Your task to perform on an android device: toggle show notifications on the lock screen Image 0: 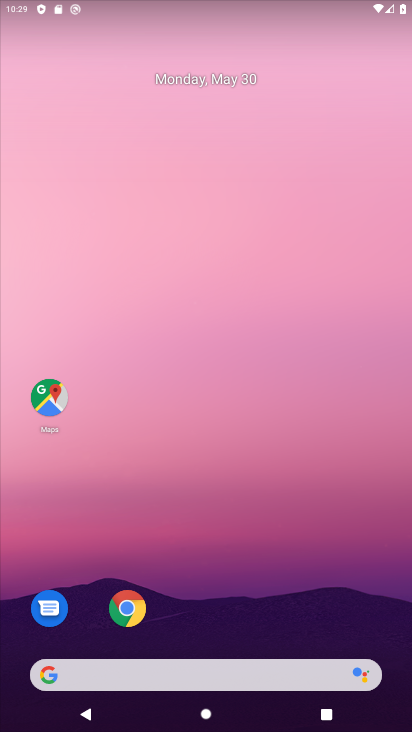
Step 0: drag from (365, 554) to (311, 6)
Your task to perform on an android device: toggle show notifications on the lock screen Image 1: 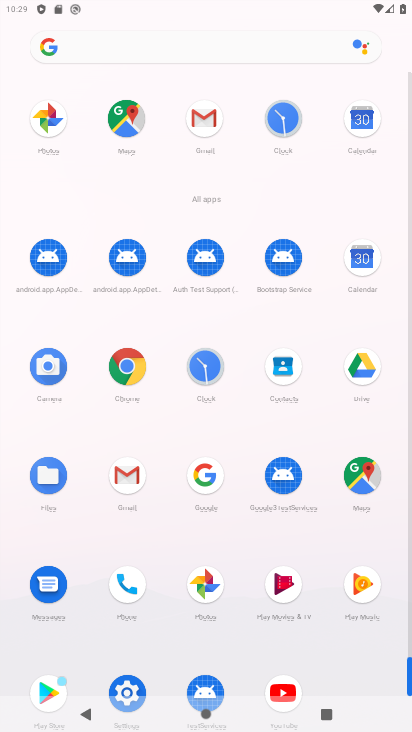
Step 1: drag from (4, 608) to (4, 280)
Your task to perform on an android device: toggle show notifications on the lock screen Image 2: 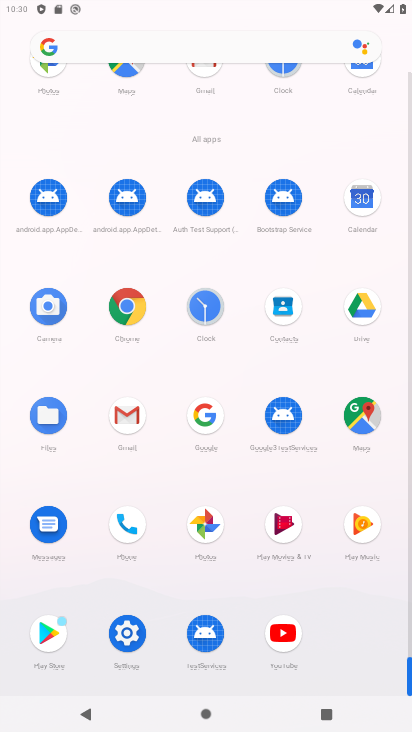
Step 2: click (128, 632)
Your task to perform on an android device: toggle show notifications on the lock screen Image 3: 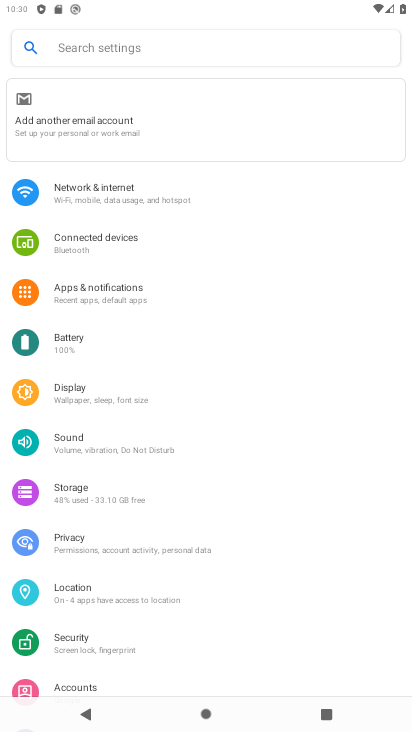
Step 3: click (143, 291)
Your task to perform on an android device: toggle show notifications on the lock screen Image 4: 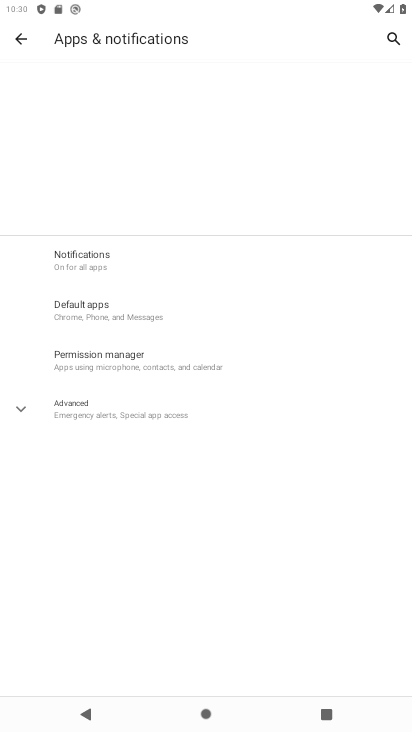
Step 4: click (31, 407)
Your task to perform on an android device: toggle show notifications on the lock screen Image 5: 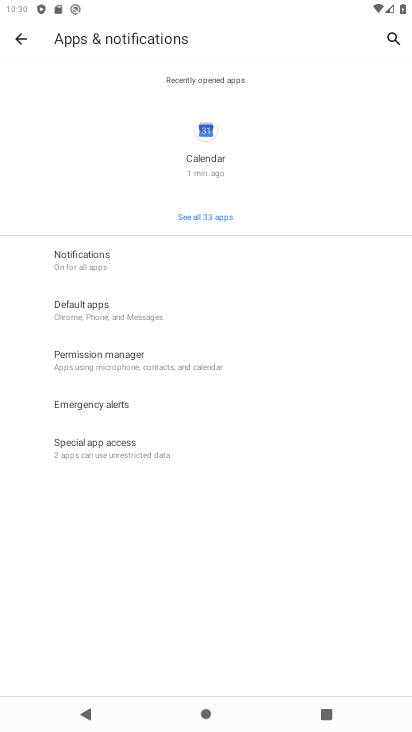
Step 5: click (161, 260)
Your task to perform on an android device: toggle show notifications on the lock screen Image 6: 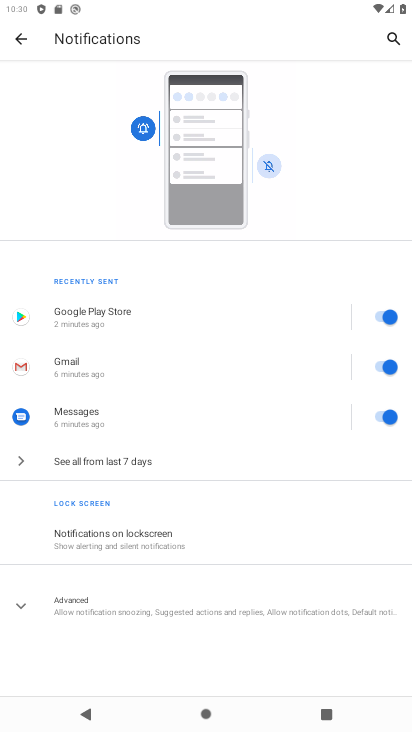
Step 6: click (26, 609)
Your task to perform on an android device: toggle show notifications on the lock screen Image 7: 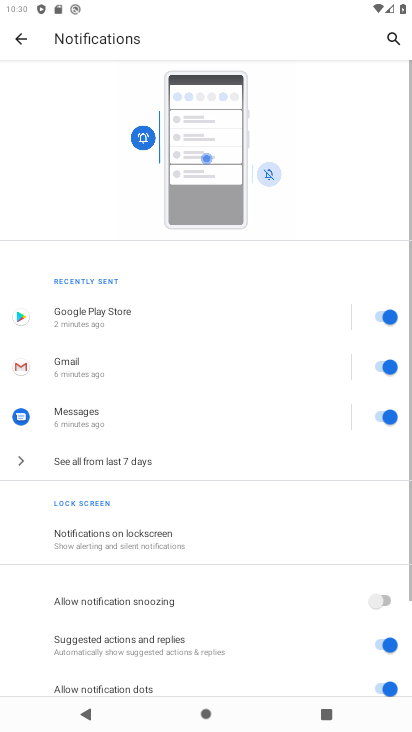
Step 7: drag from (236, 545) to (255, 227)
Your task to perform on an android device: toggle show notifications on the lock screen Image 8: 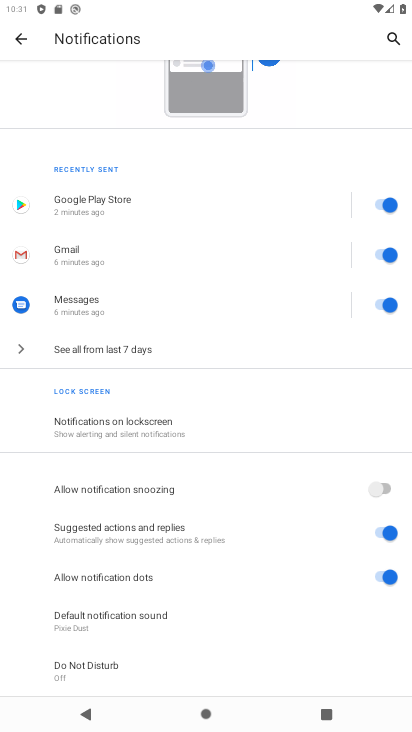
Step 8: click (166, 423)
Your task to perform on an android device: toggle show notifications on the lock screen Image 9: 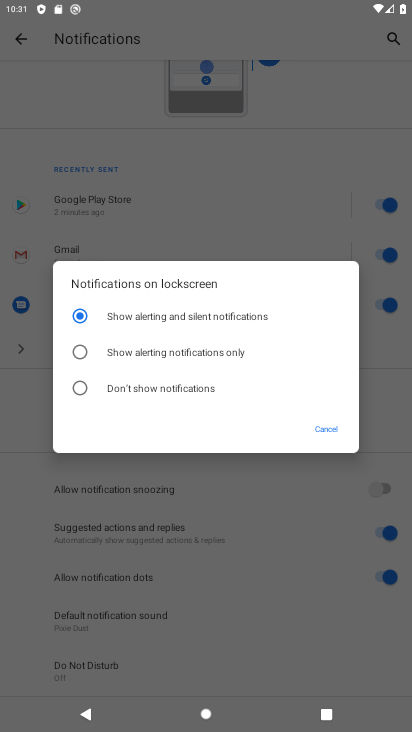
Step 9: click (156, 353)
Your task to perform on an android device: toggle show notifications on the lock screen Image 10: 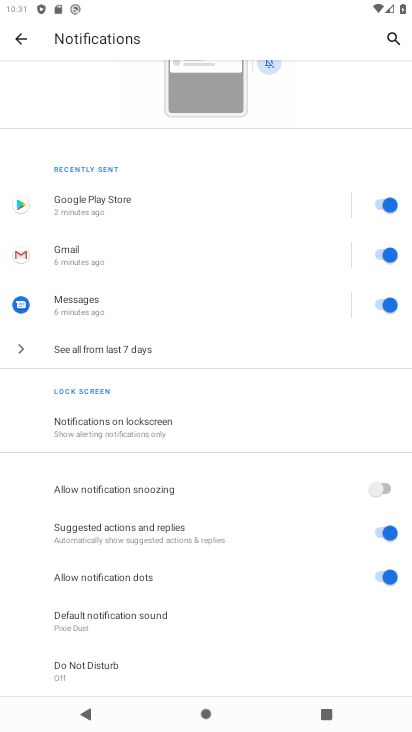
Step 10: task complete